Your task to perform on an android device: Open Google Maps and go to "Timeline" Image 0: 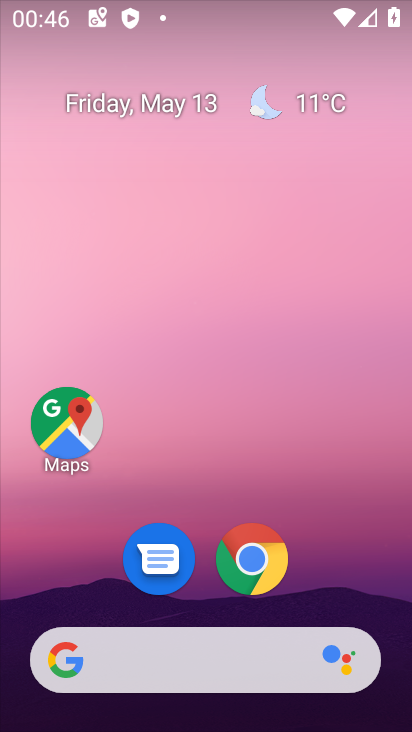
Step 0: click (62, 426)
Your task to perform on an android device: Open Google Maps and go to "Timeline" Image 1: 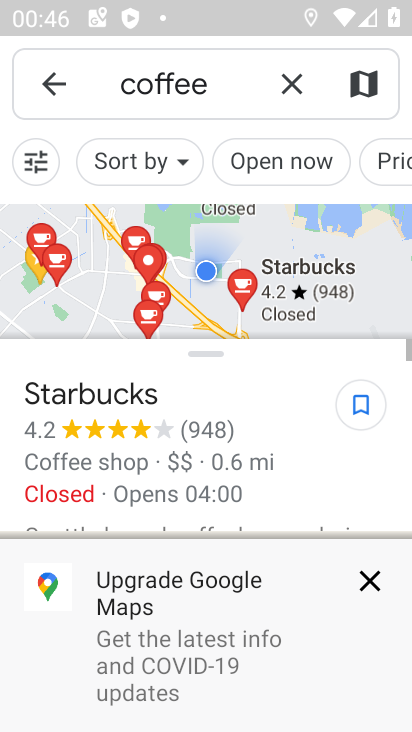
Step 1: click (295, 75)
Your task to perform on an android device: Open Google Maps and go to "Timeline" Image 2: 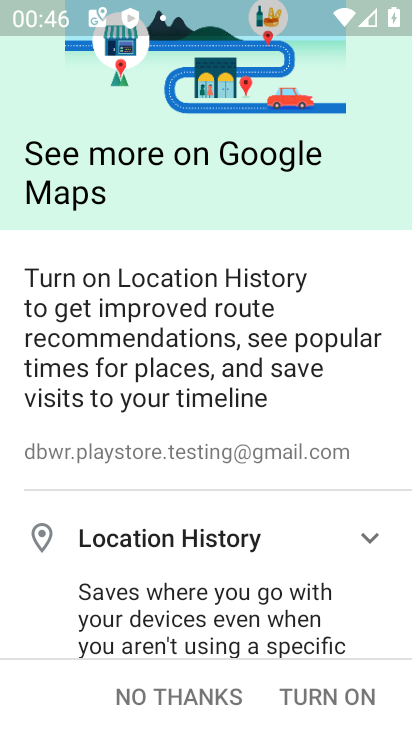
Step 2: click (175, 695)
Your task to perform on an android device: Open Google Maps and go to "Timeline" Image 3: 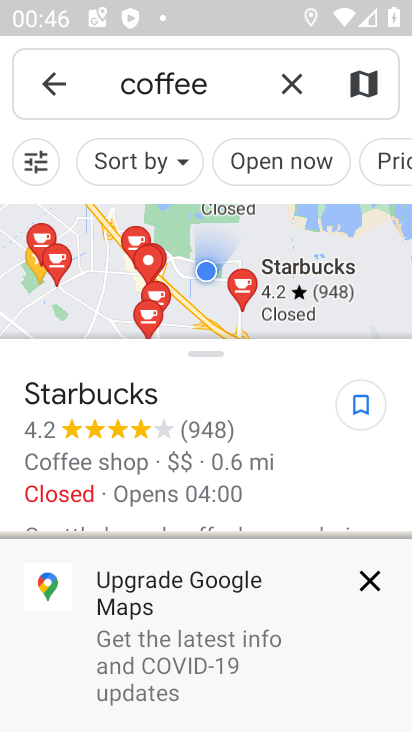
Step 3: press back button
Your task to perform on an android device: Open Google Maps and go to "Timeline" Image 4: 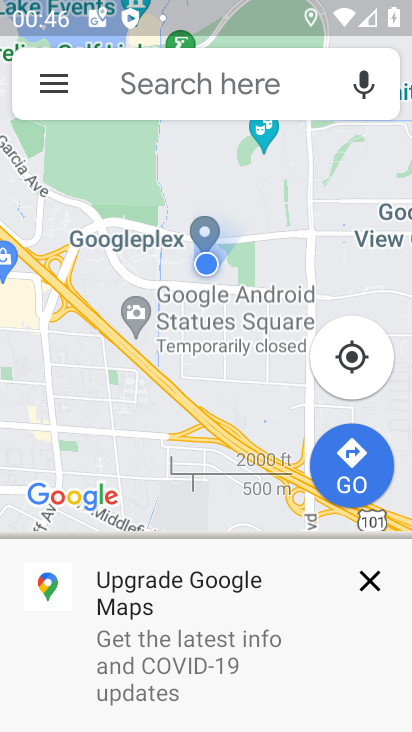
Step 4: click (56, 70)
Your task to perform on an android device: Open Google Maps and go to "Timeline" Image 5: 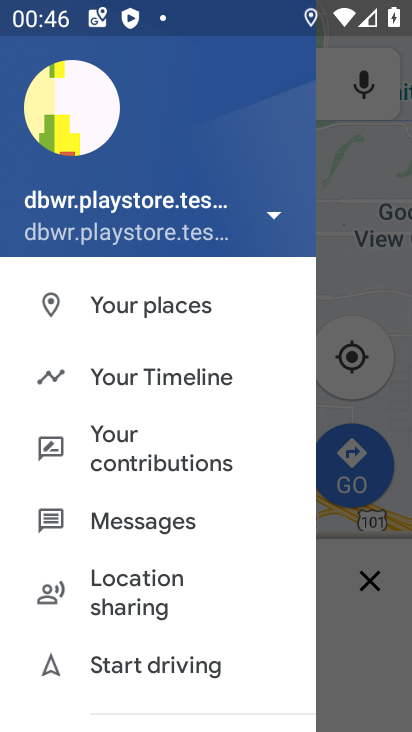
Step 5: drag from (201, 613) to (178, 459)
Your task to perform on an android device: Open Google Maps and go to "Timeline" Image 6: 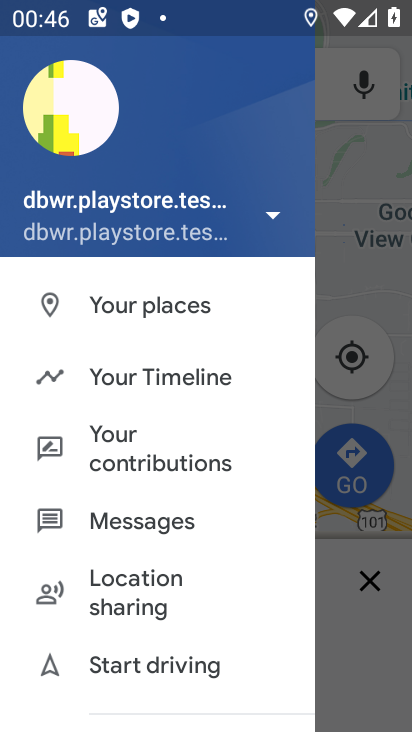
Step 6: click (152, 381)
Your task to perform on an android device: Open Google Maps and go to "Timeline" Image 7: 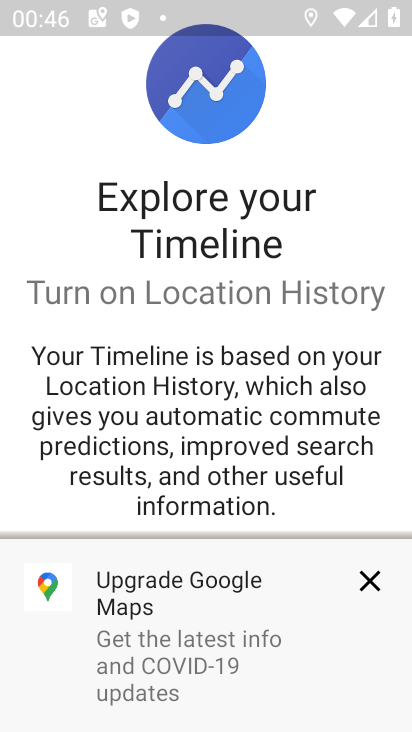
Step 7: task complete